Your task to perform on an android device: open the mobile data screen to see how much data has been used Image 0: 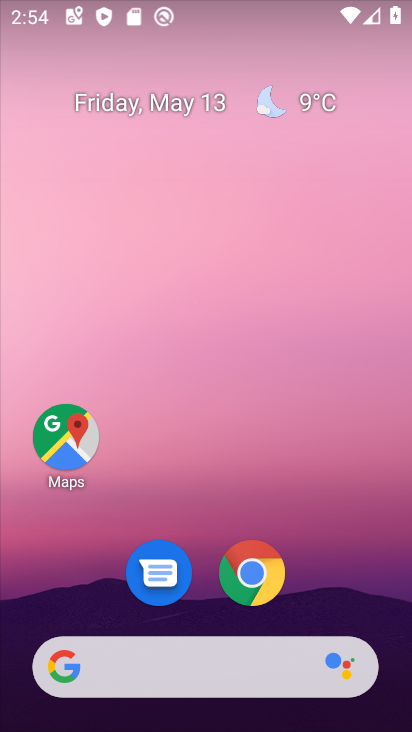
Step 0: drag from (237, 604) to (289, 137)
Your task to perform on an android device: open the mobile data screen to see how much data has been used Image 1: 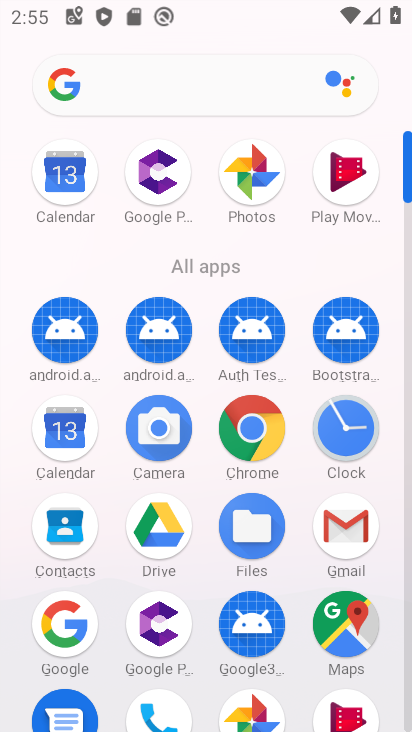
Step 1: drag from (199, 632) to (305, 143)
Your task to perform on an android device: open the mobile data screen to see how much data has been used Image 2: 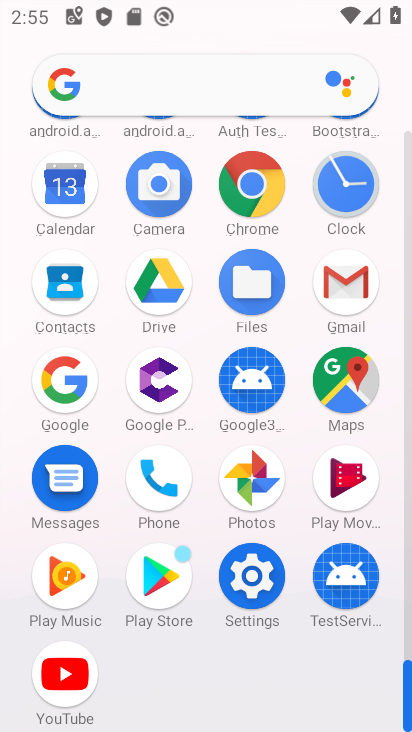
Step 2: click (250, 597)
Your task to perform on an android device: open the mobile data screen to see how much data has been used Image 3: 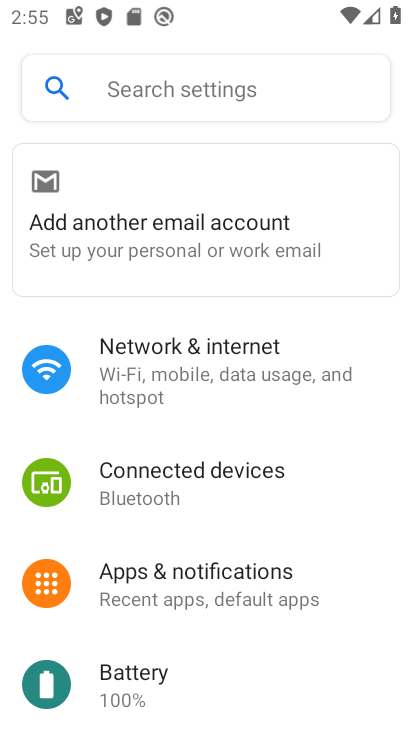
Step 3: click (176, 400)
Your task to perform on an android device: open the mobile data screen to see how much data has been used Image 4: 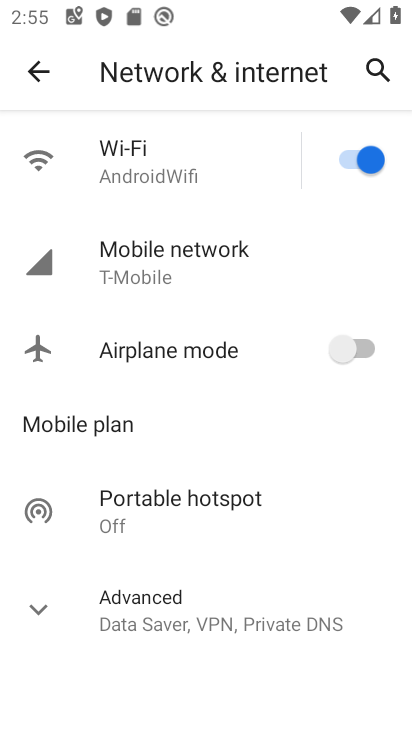
Step 4: click (160, 255)
Your task to perform on an android device: open the mobile data screen to see how much data has been used Image 5: 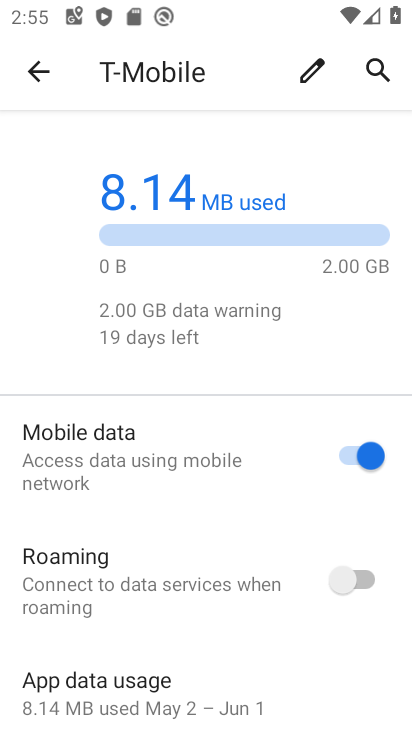
Step 5: click (109, 685)
Your task to perform on an android device: open the mobile data screen to see how much data has been used Image 6: 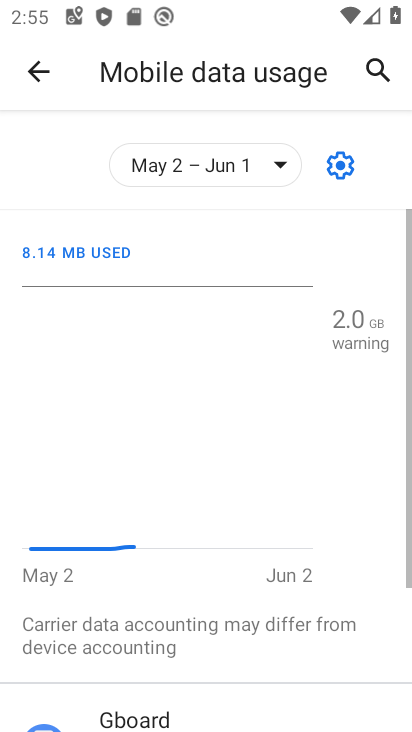
Step 6: task complete